Your task to perform on an android device: Is it going to rain tomorrow? Image 0: 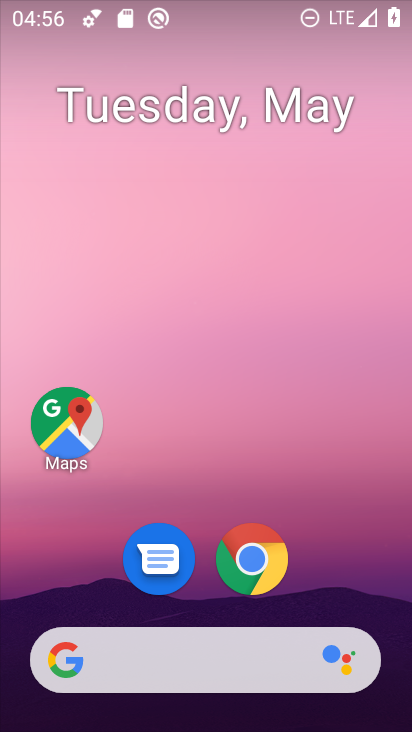
Step 0: drag from (202, 715) to (193, 168)
Your task to perform on an android device: Is it going to rain tomorrow? Image 1: 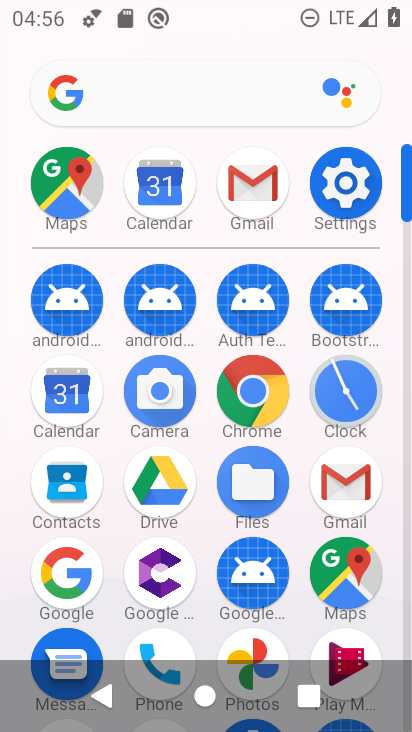
Step 1: click (70, 568)
Your task to perform on an android device: Is it going to rain tomorrow? Image 2: 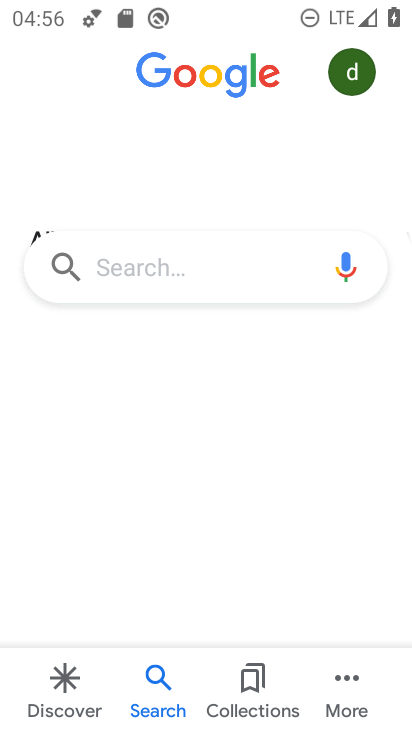
Step 2: click (225, 268)
Your task to perform on an android device: Is it going to rain tomorrow? Image 3: 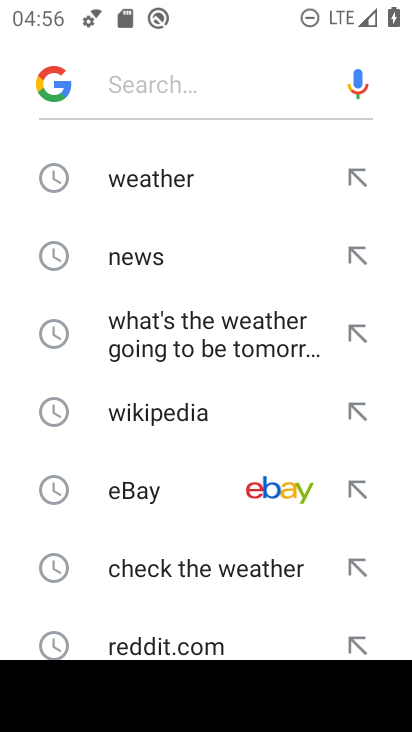
Step 3: click (139, 175)
Your task to perform on an android device: Is it going to rain tomorrow? Image 4: 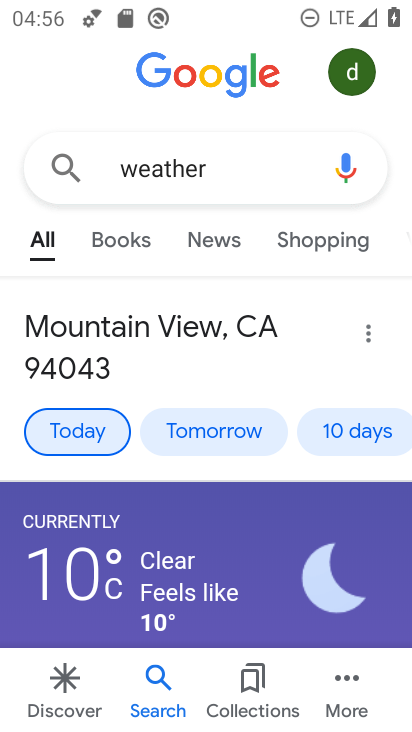
Step 4: click (239, 433)
Your task to perform on an android device: Is it going to rain tomorrow? Image 5: 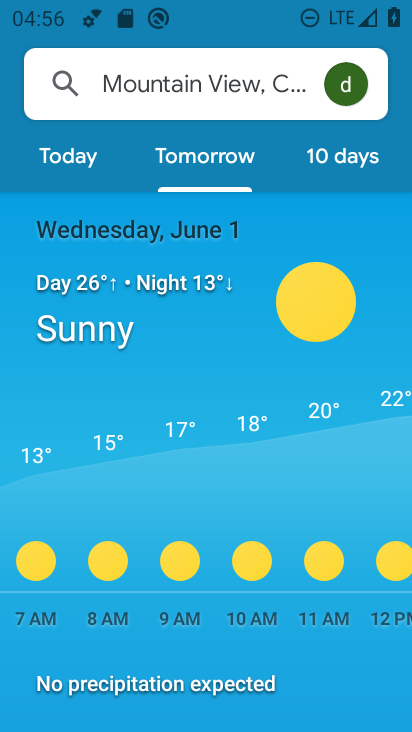
Step 5: task complete